Your task to perform on an android device: Search for razer blade on target.com, select the first entry, add it to the cart, then select checkout. Image 0: 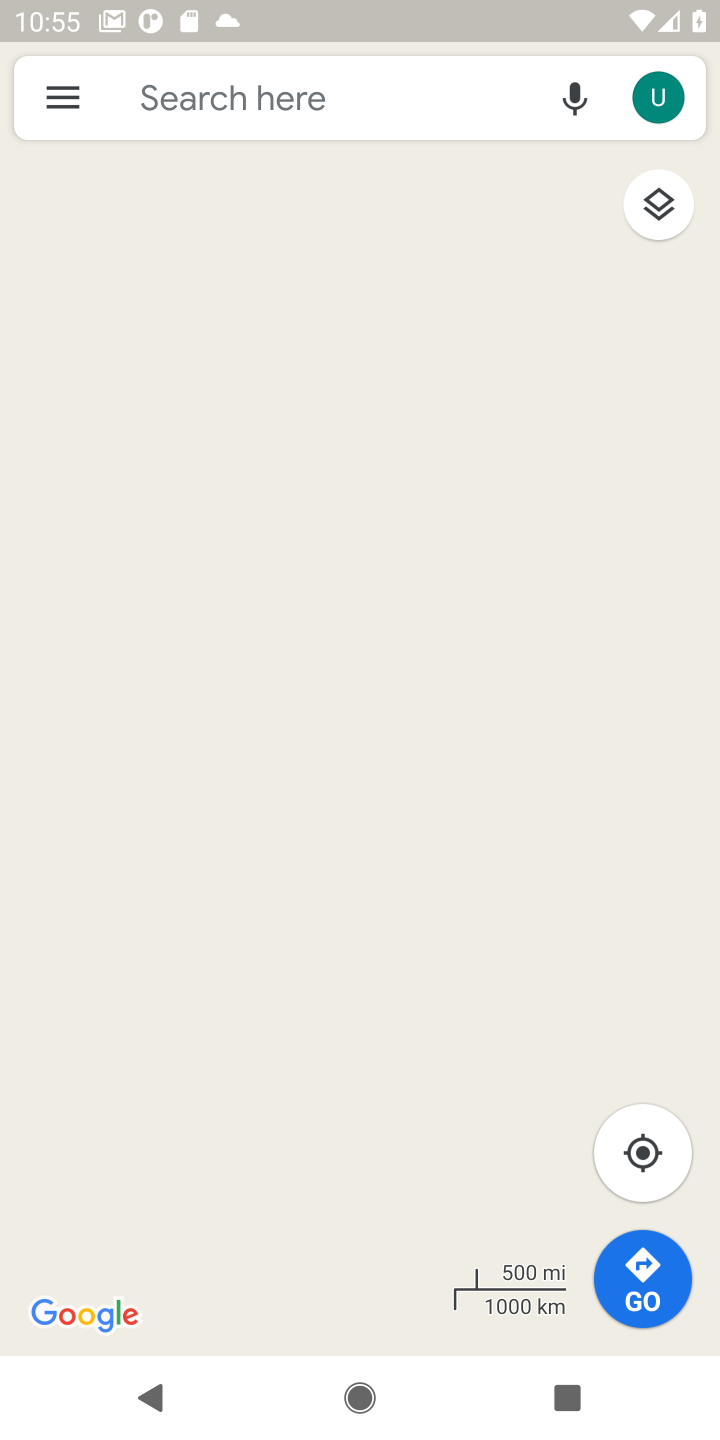
Step 0: press home button
Your task to perform on an android device: Search for razer blade on target.com, select the first entry, add it to the cart, then select checkout. Image 1: 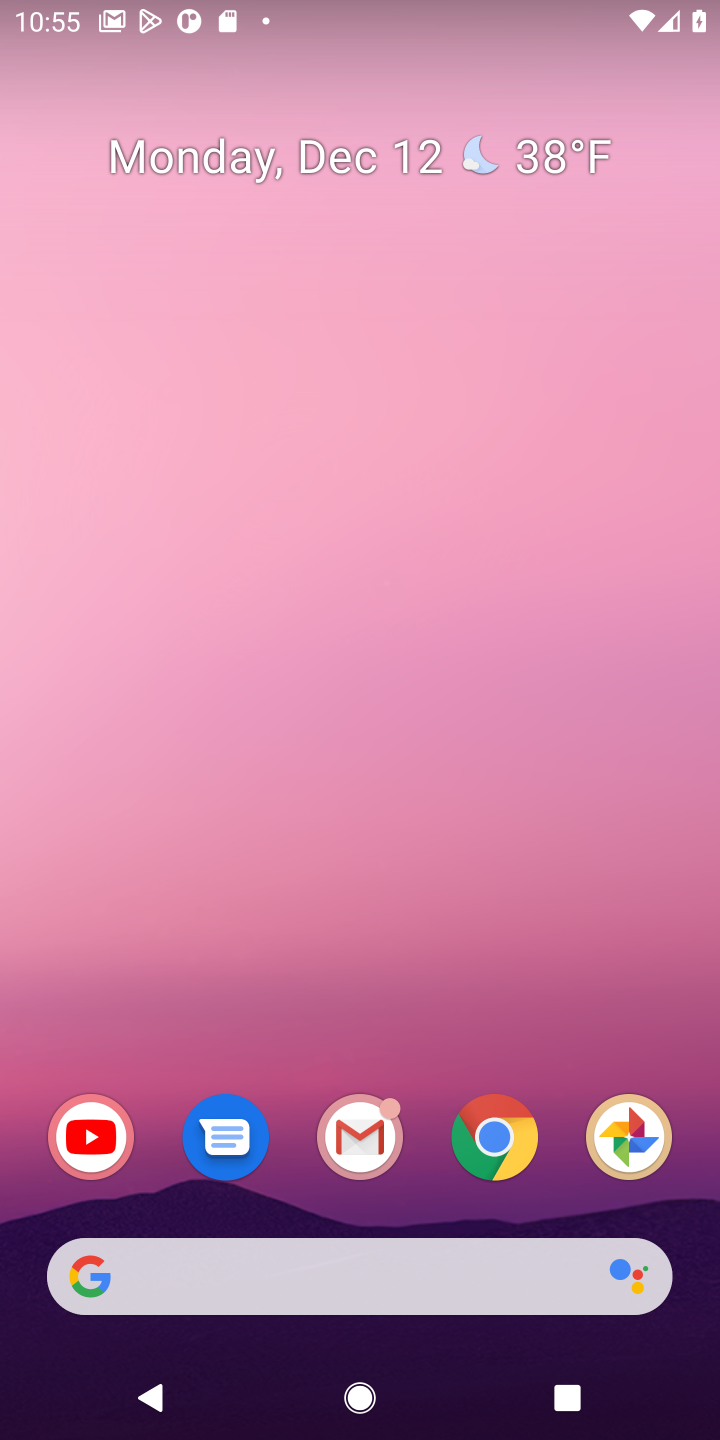
Step 1: click (374, 1276)
Your task to perform on an android device: Search for razer blade on target.com, select the first entry, add it to the cart, then select checkout. Image 2: 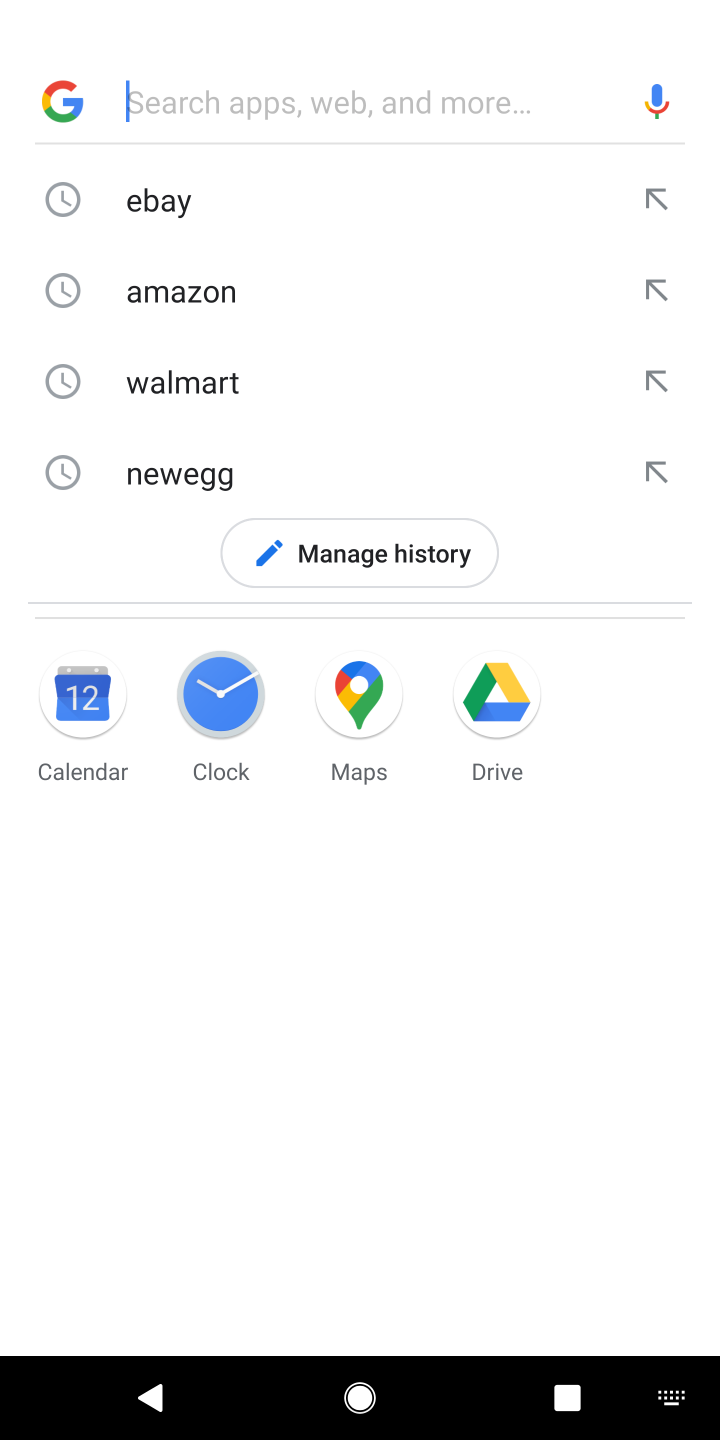
Step 2: type "target"
Your task to perform on an android device: Search for razer blade on target.com, select the first entry, add it to the cart, then select checkout. Image 3: 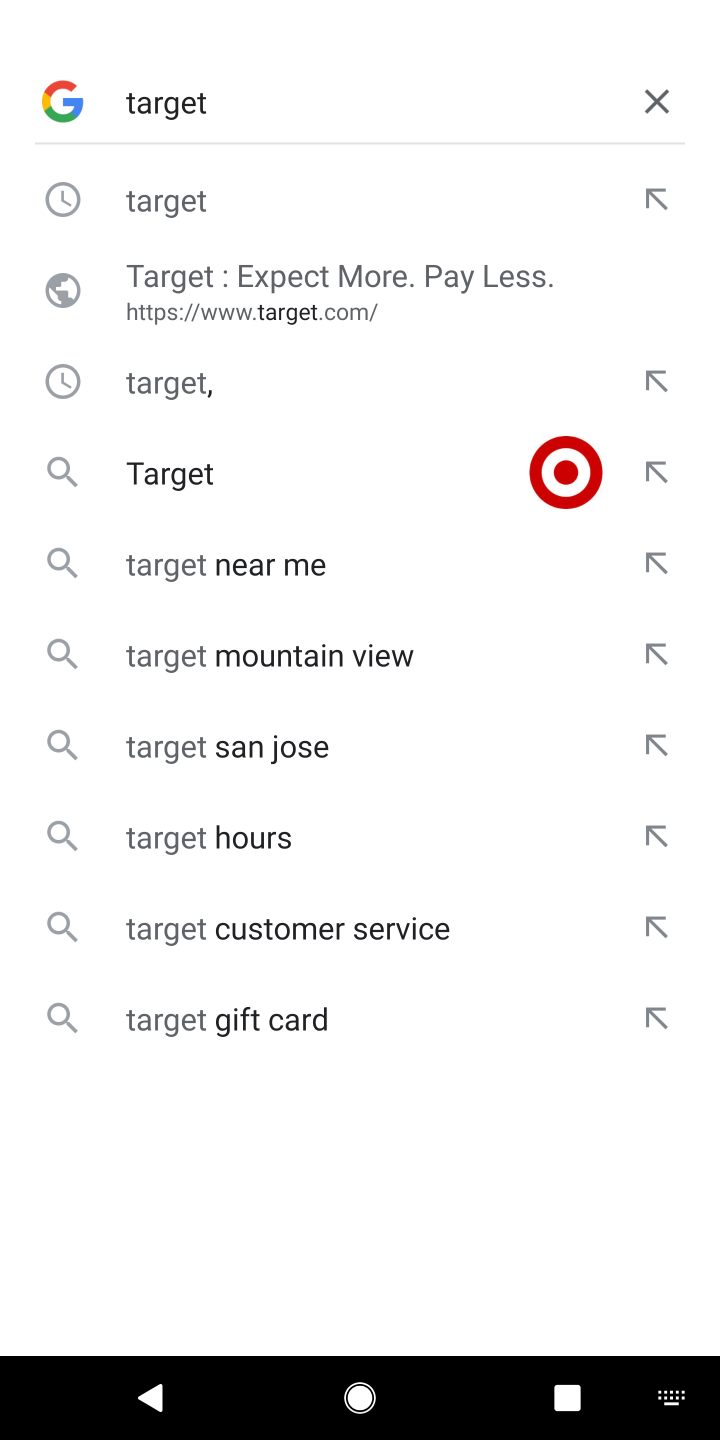
Step 3: click (265, 483)
Your task to perform on an android device: Search for razer blade on target.com, select the first entry, add it to the cart, then select checkout. Image 4: 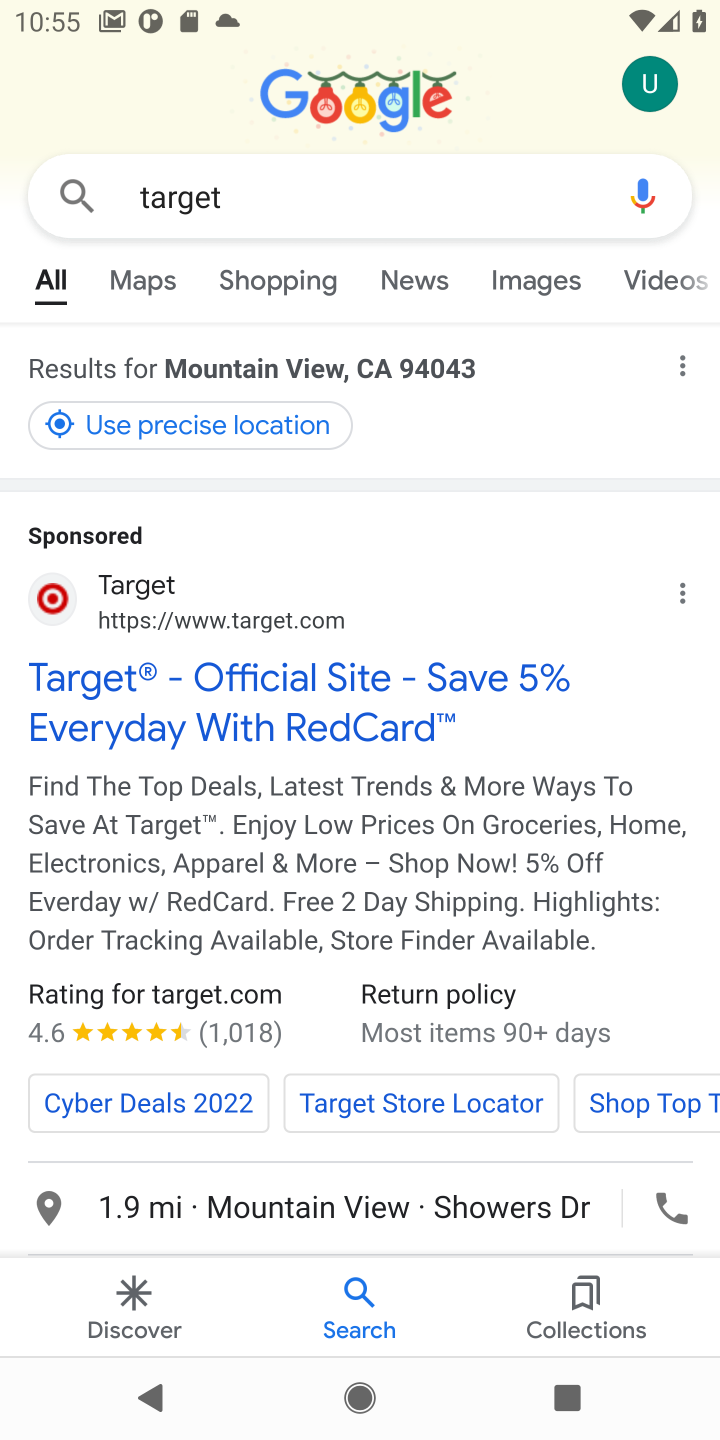
Step 4: click (205, 724)
Your task to perform on an android device: Search for razer blade on target.com, select the first entry, add it to the cart, then select checkout. Image 5: 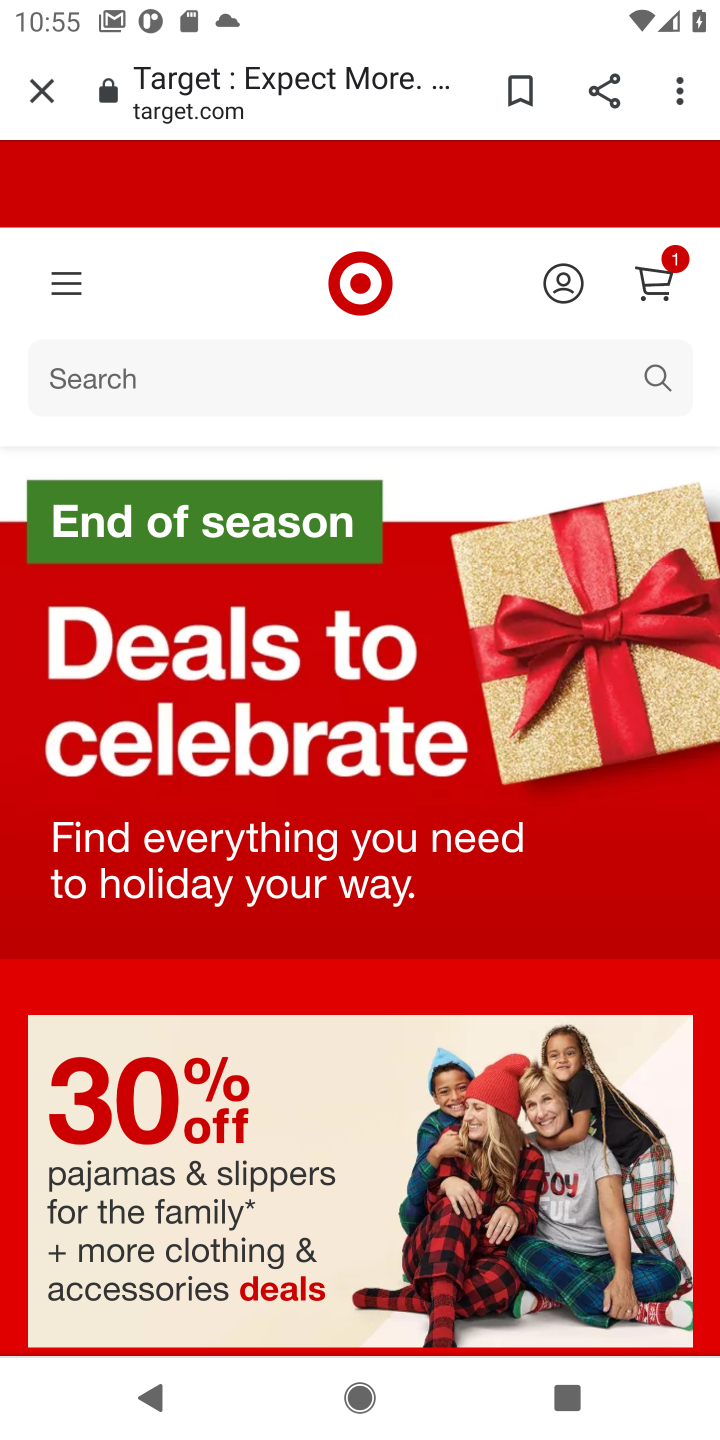
Step 5: click (370, 407)
Your task to perform on an android device: Search for razer blade on target.com, select the first entry, add it to the cart, then select checkout. Image 6: 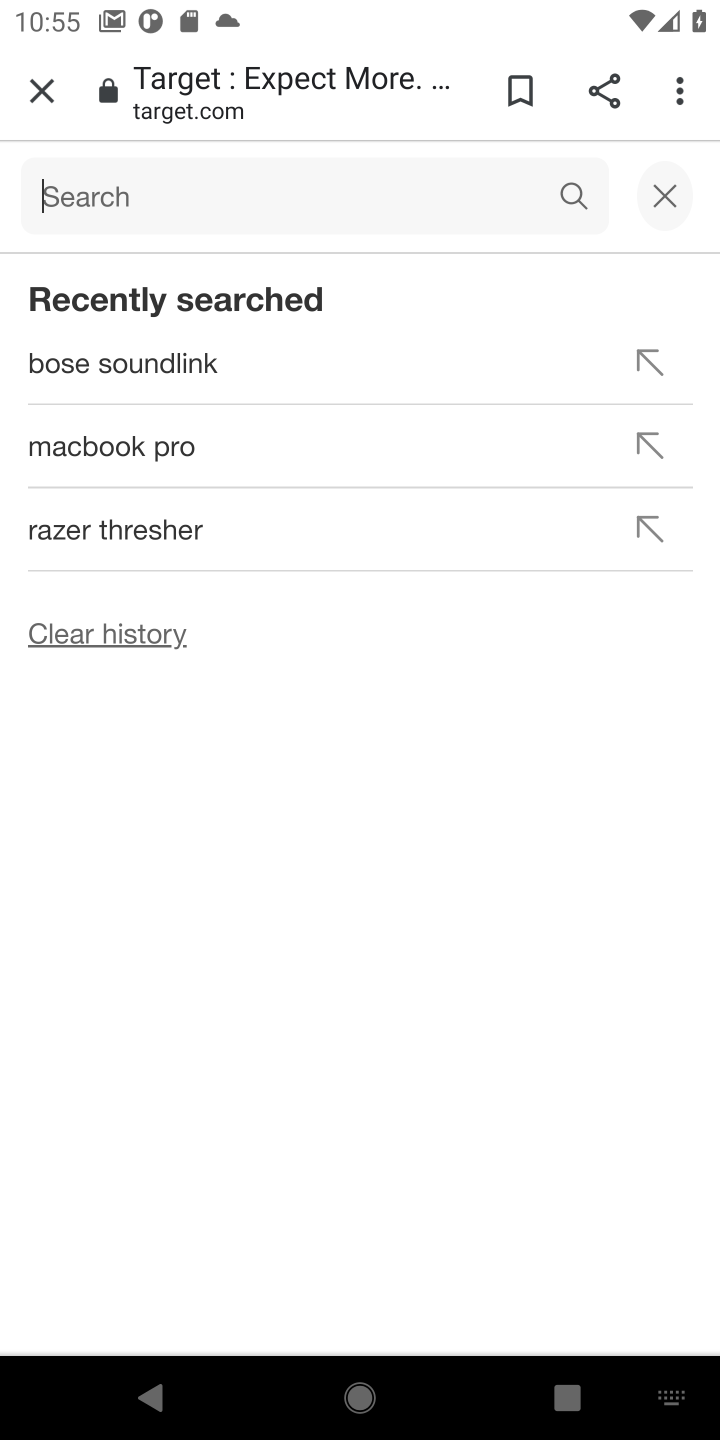
Step 6: type "razer blade"
Your task to perform on an android device: Search for razer blade on target.com, select the first entry, add it to the cart, then select checkout. Image 7: 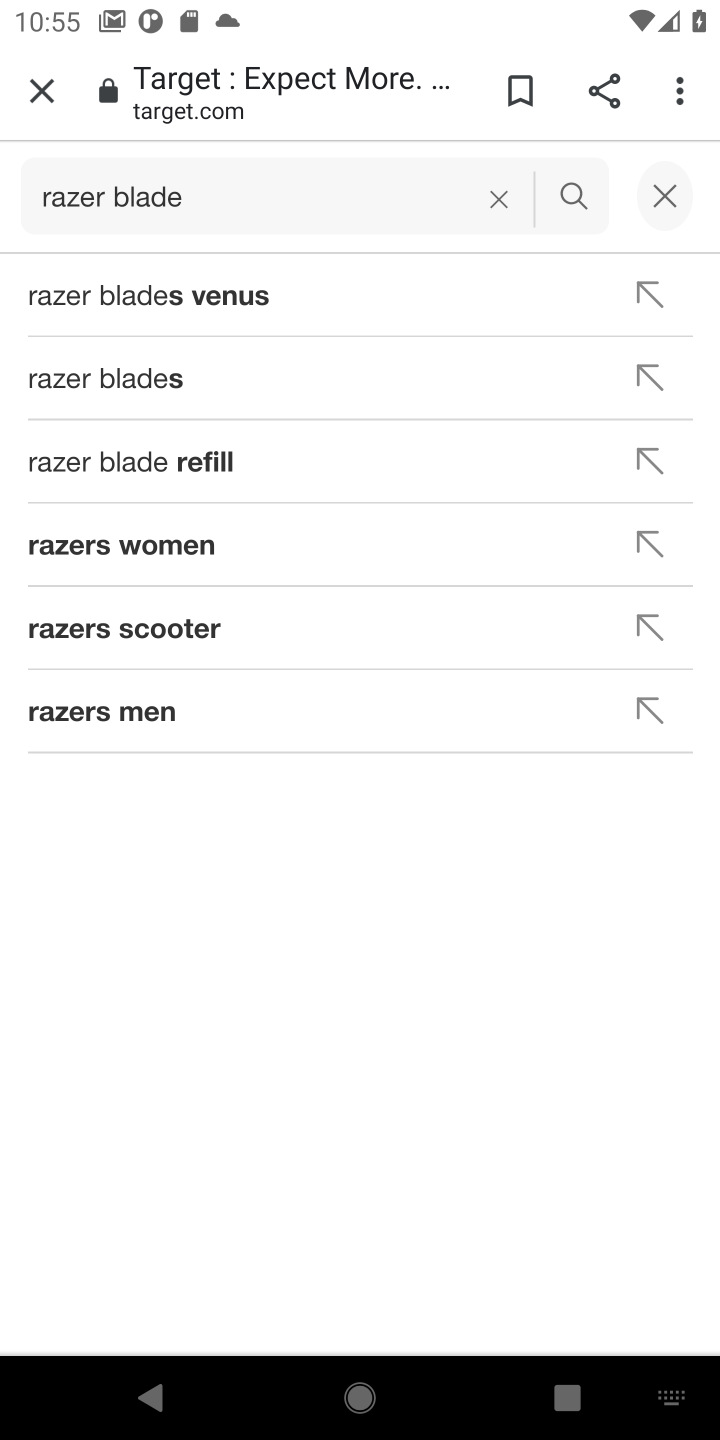
Step 7: click (563, 213)
Your task to perform on an android device: Search for razer blade on target.com, select the first entry, add it to the cart, then select checkout. Image 8: 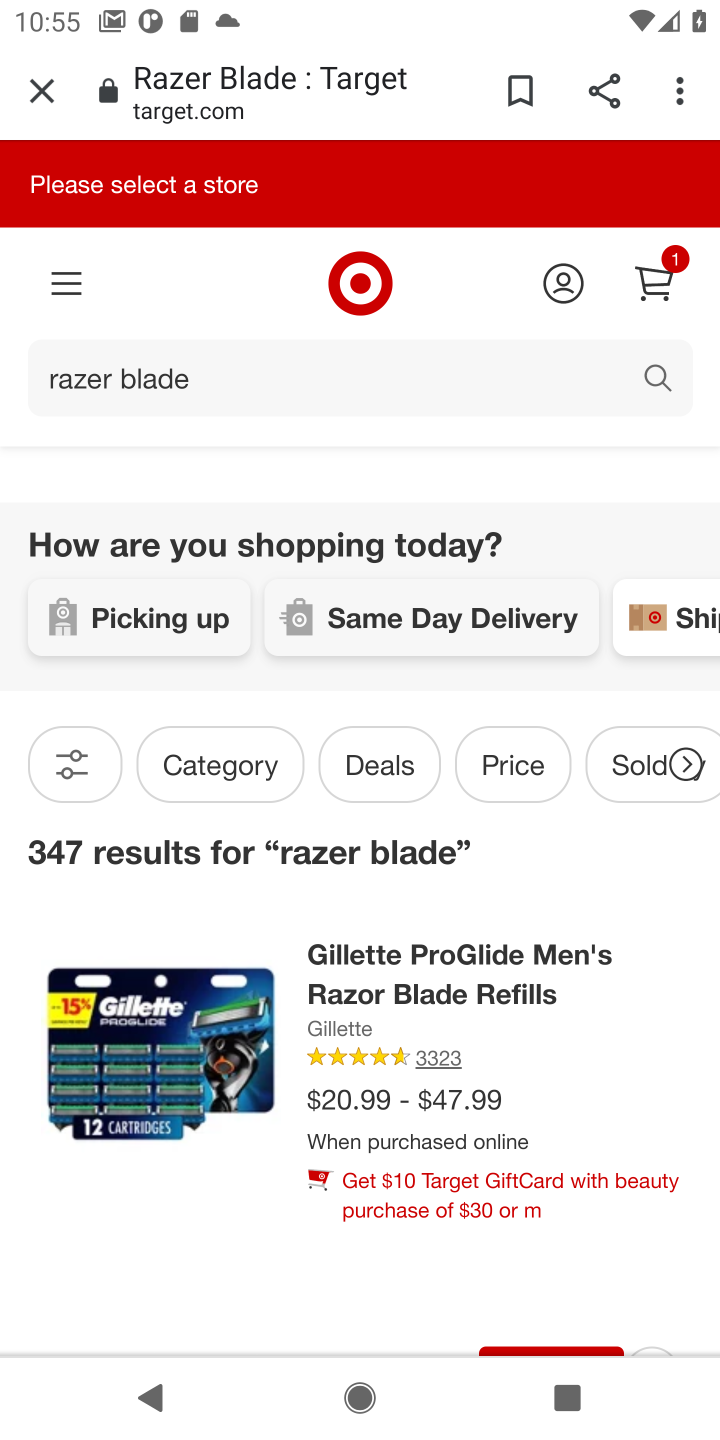
Step 8: click (489, 1352)
Your task to perform on an android device: Search for razer blade on target.com, select the first entry, add it to the cart, then select checkout. Image 9: 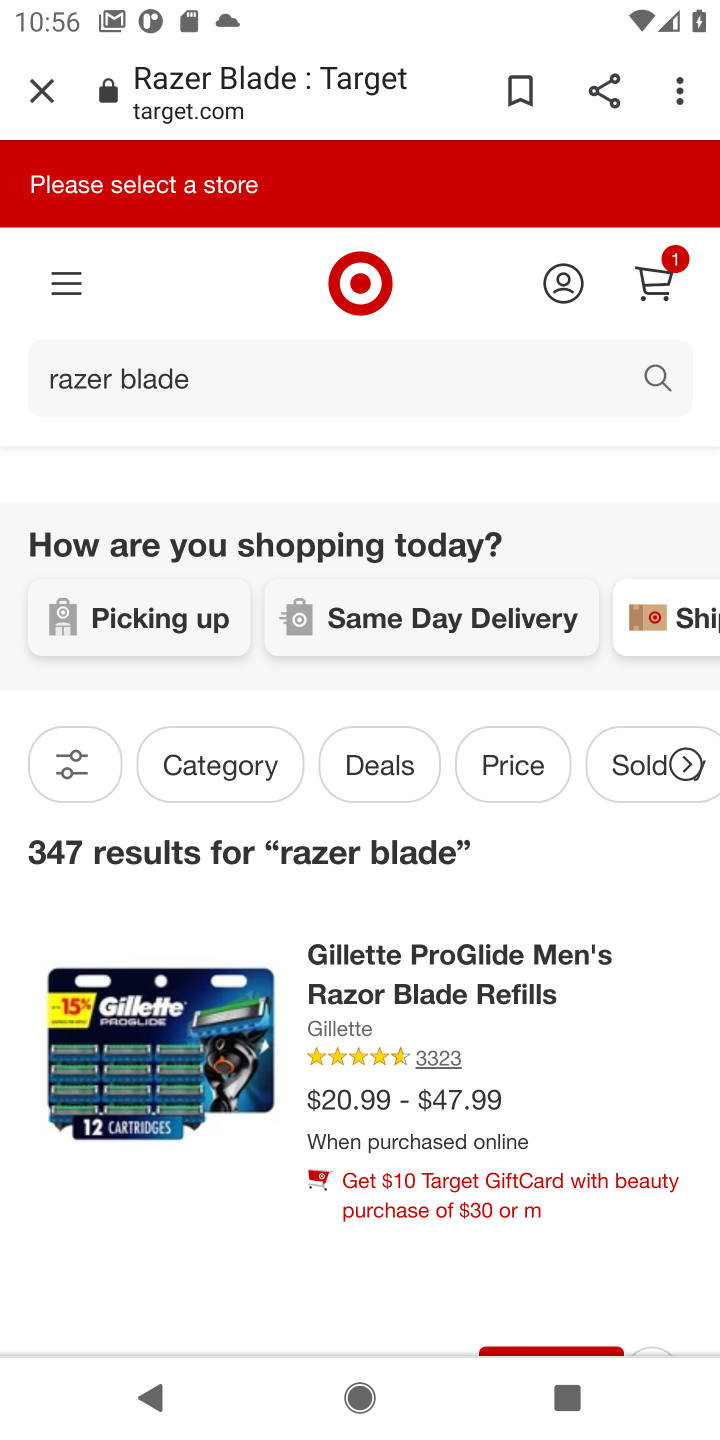
Step 9: click (524, 1357)
Your task to perform on an android device: Search for razer blade on target.com, select the first entry, add it to the cart, then select checkout. Image 10: 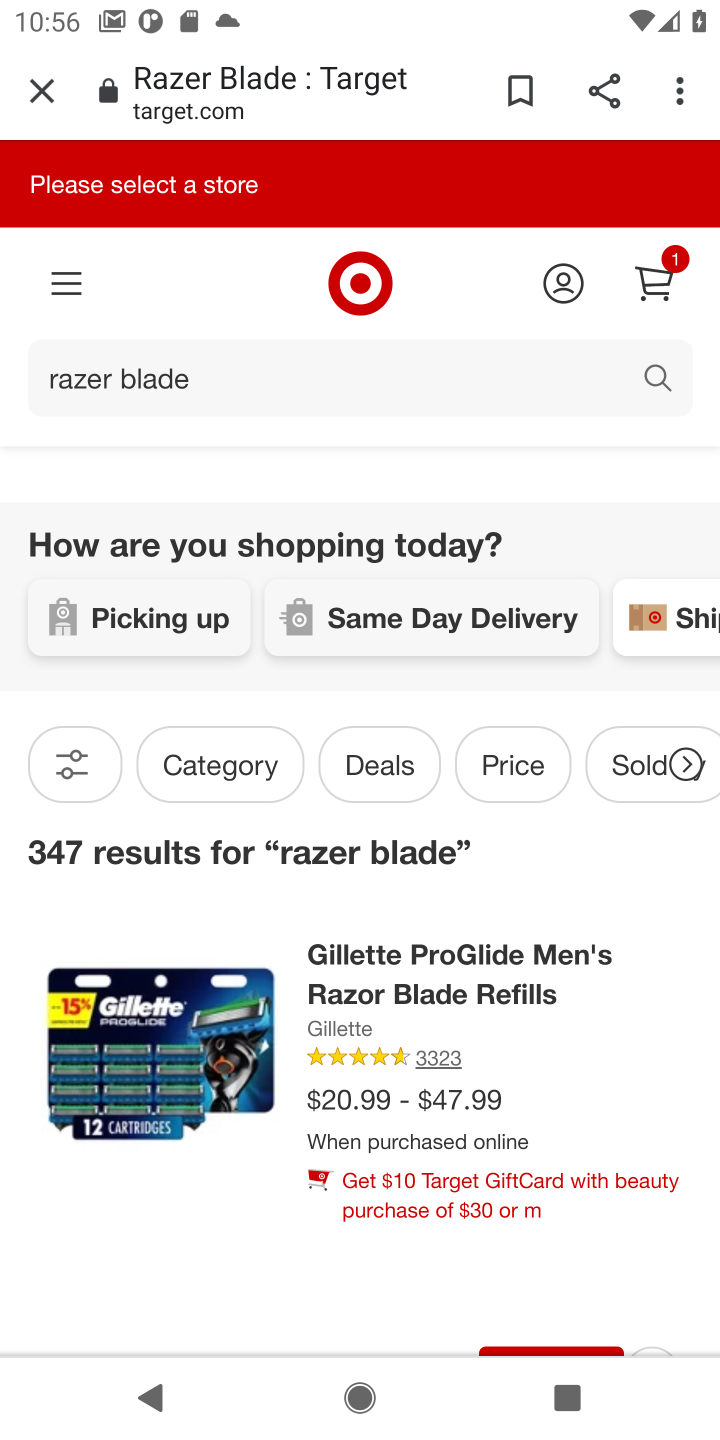
Step 10: drag from (539, 1219) to (534, 894)
Your task to perform on an android device: Search for razer blade on target.com, select the first entry, add it to the cart, then select checkout. Image 11: 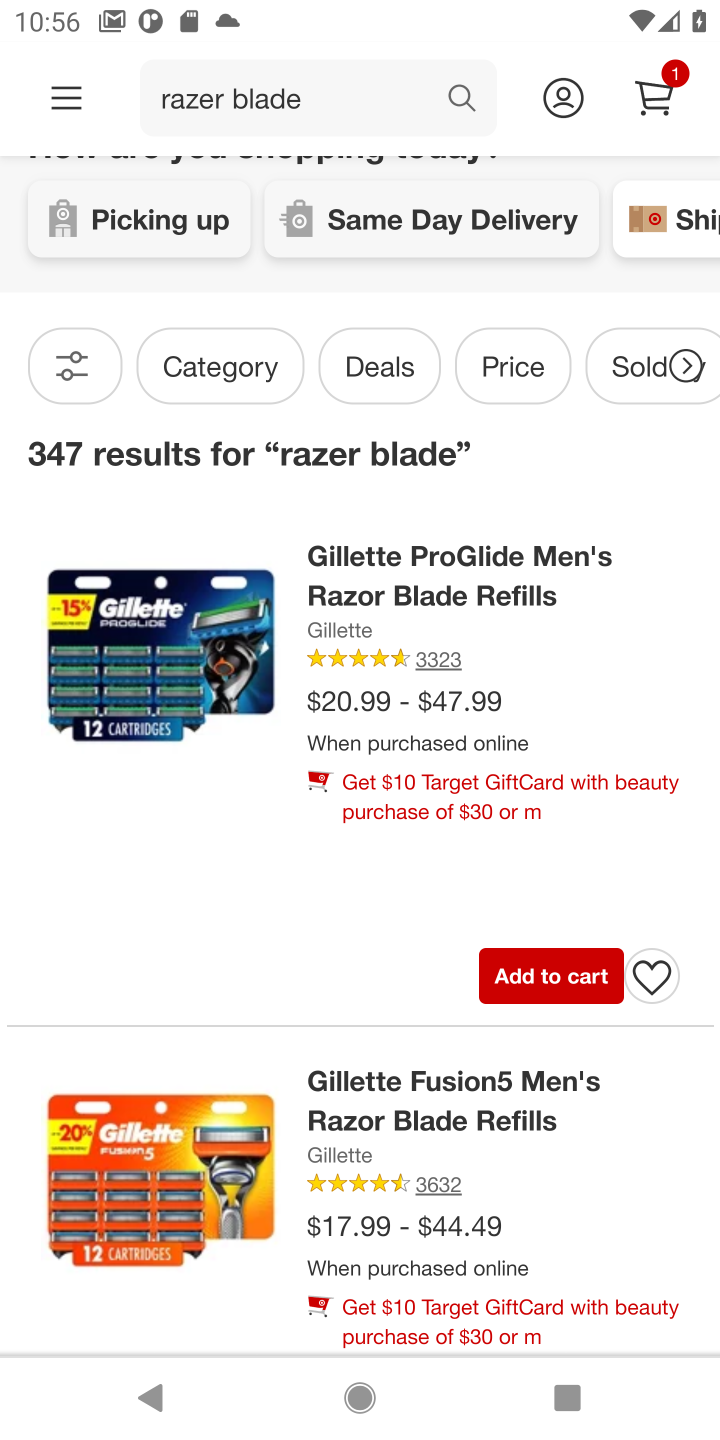
Step 11: click (556, 1001)
Your task to perform on an android device: Search for razer blade on target.com, select the first entry, add it to the cart, then select checkout. Image 12: 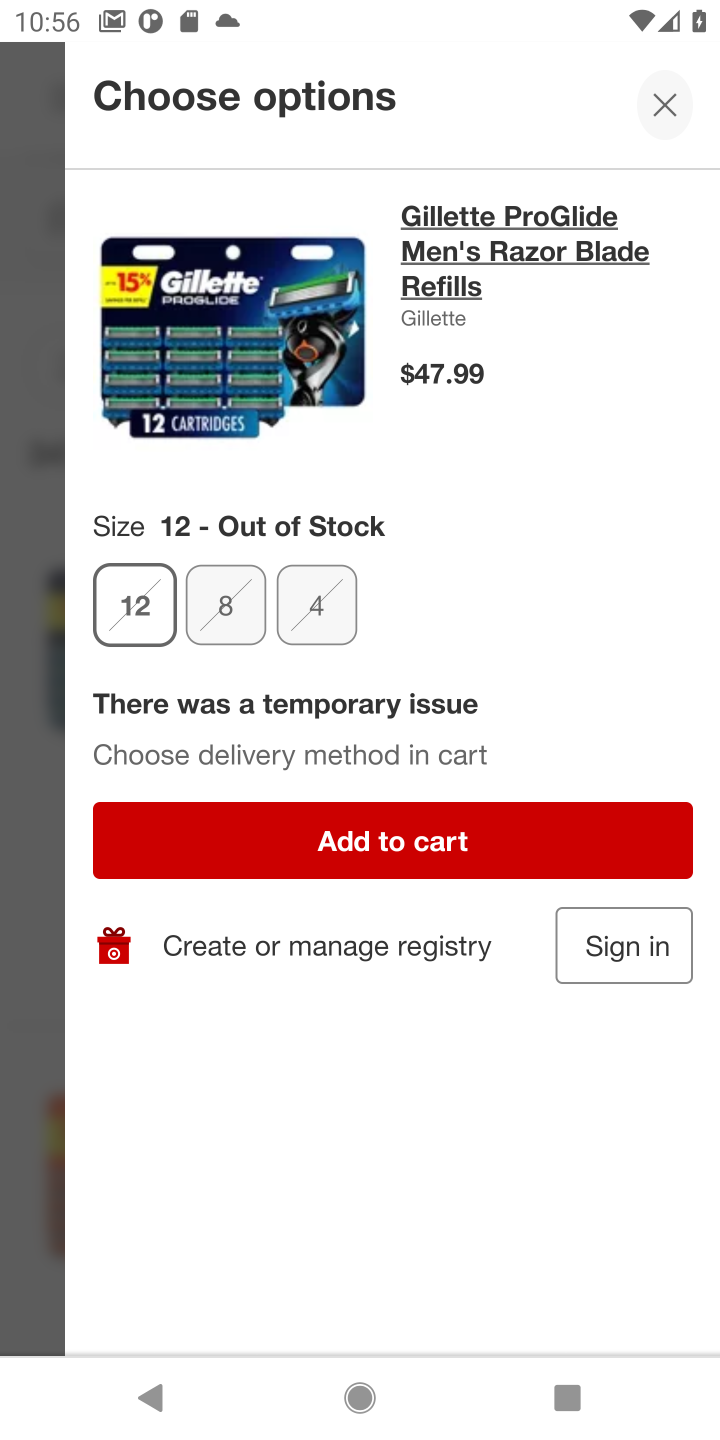
Step 12: click (467, 837)
Your task to perform on an android device: Search for razer blade on target.com, select the first entry, add it to the cart, then select checkout. Image 13: 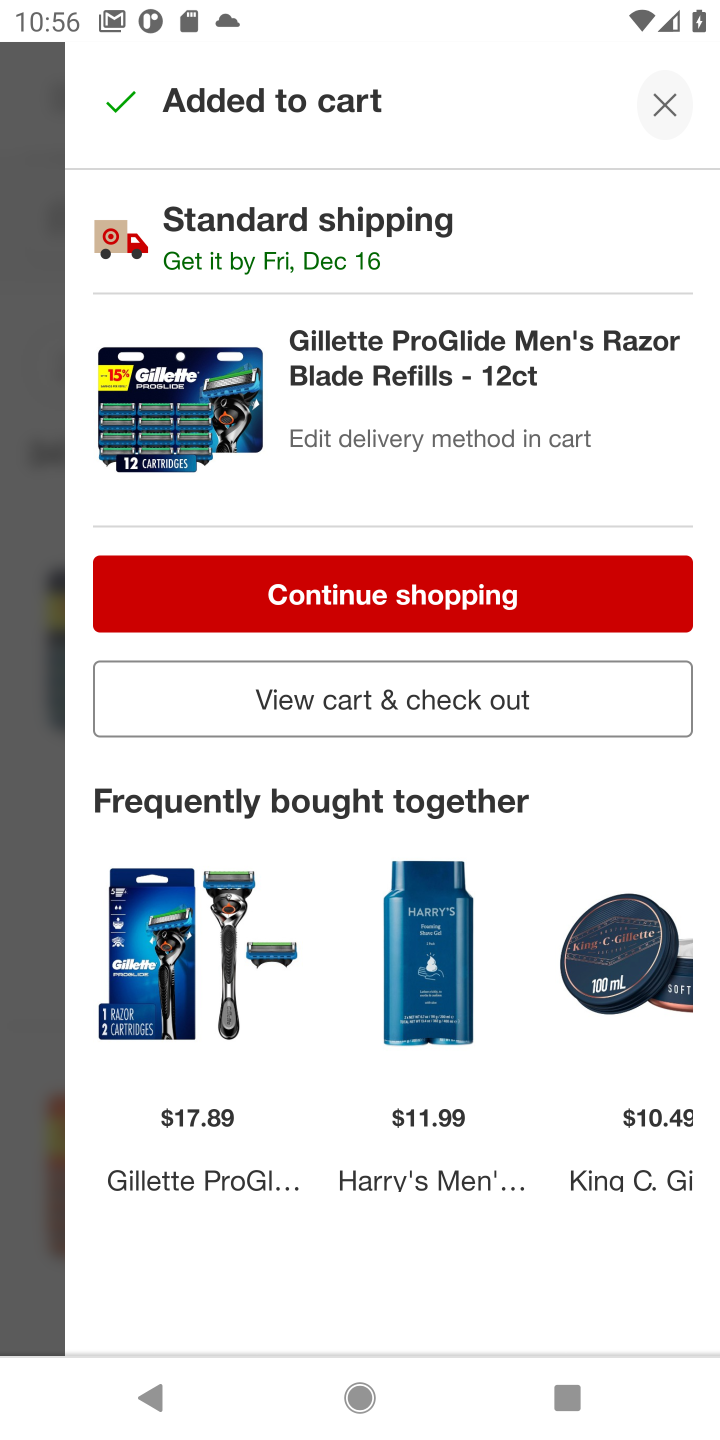
Step 13: task complete